Your task to perform on an android device: find photos in the google photos app Image 0: 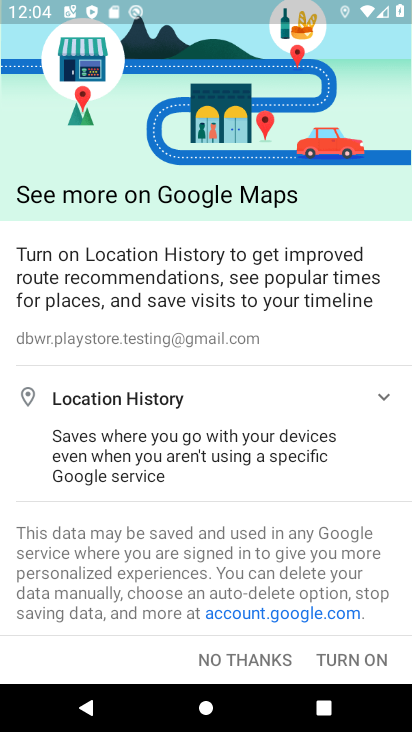
Step 0: press home button
Your task to perform on an android device: find photos in the google photos app Image 1: 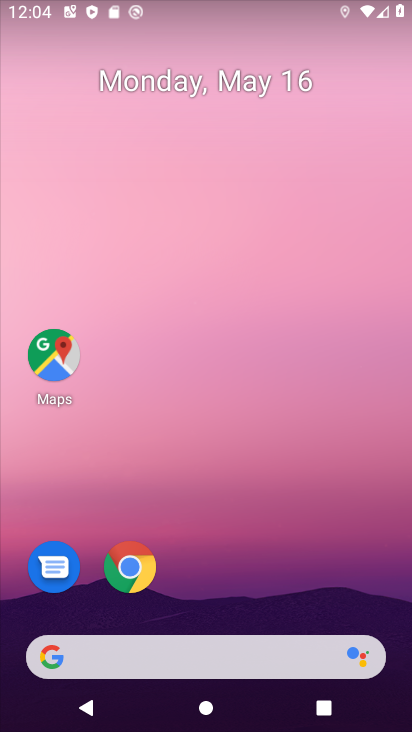
Step 1: drag from (288, 542) to (280, 49)
Your task to perform on an android device: find photos in the google photos app Image 2: 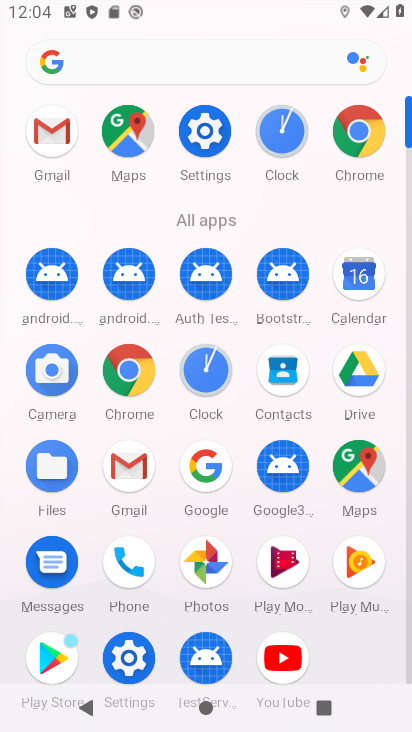
Step 2: click (213, 562)
Your task to perform on an android device: find photos in the google photos app Image 3: 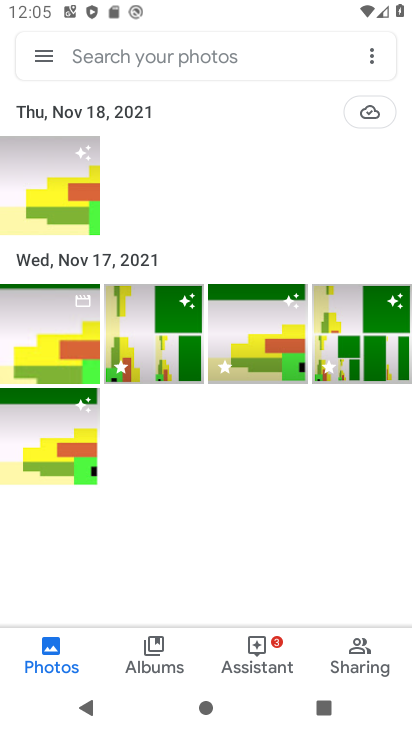
Step 3: task complete